Your task to perform on an android device: Is it going to rain today? Image 0: 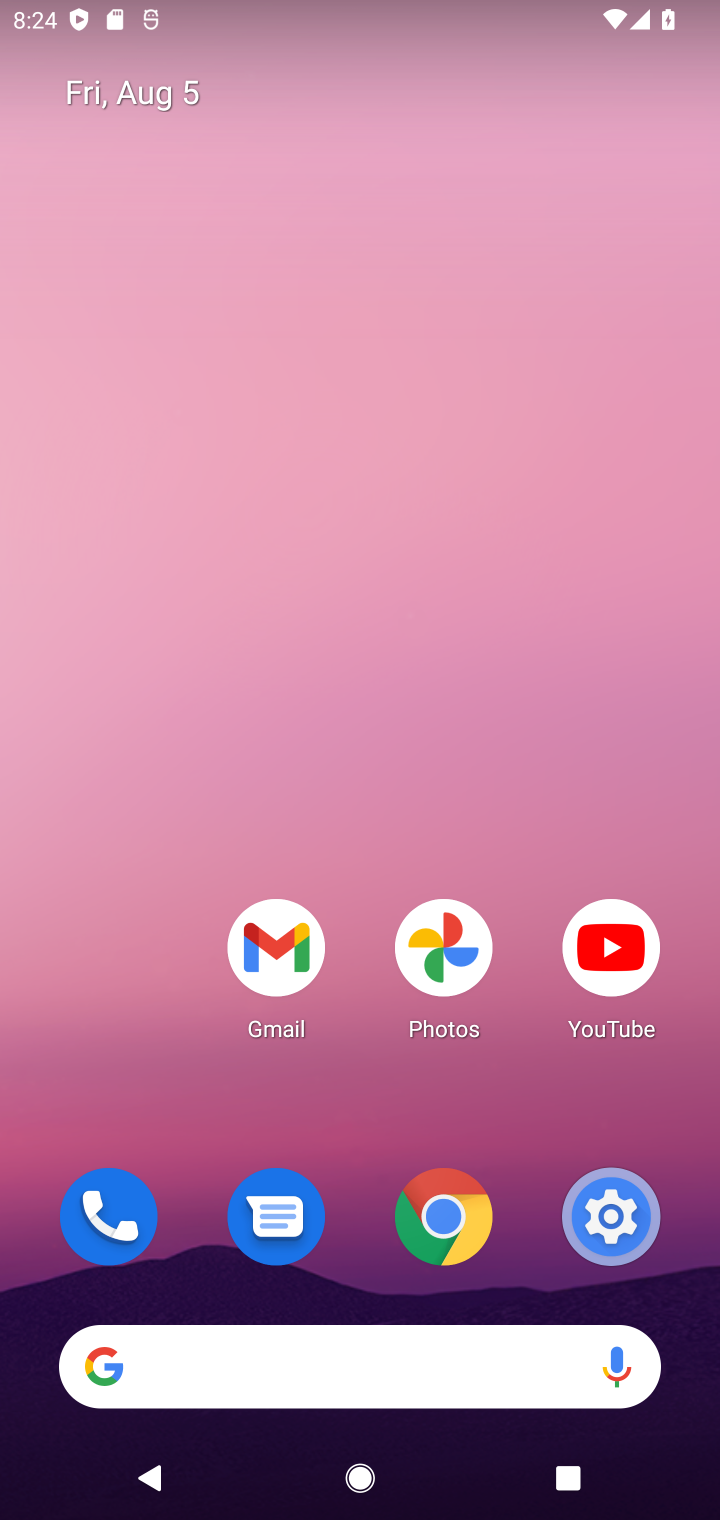
Step 0: drag from (345, 598) to (351, 519)
Your task to perform on an android device: Is it going to rain today? Image 1: 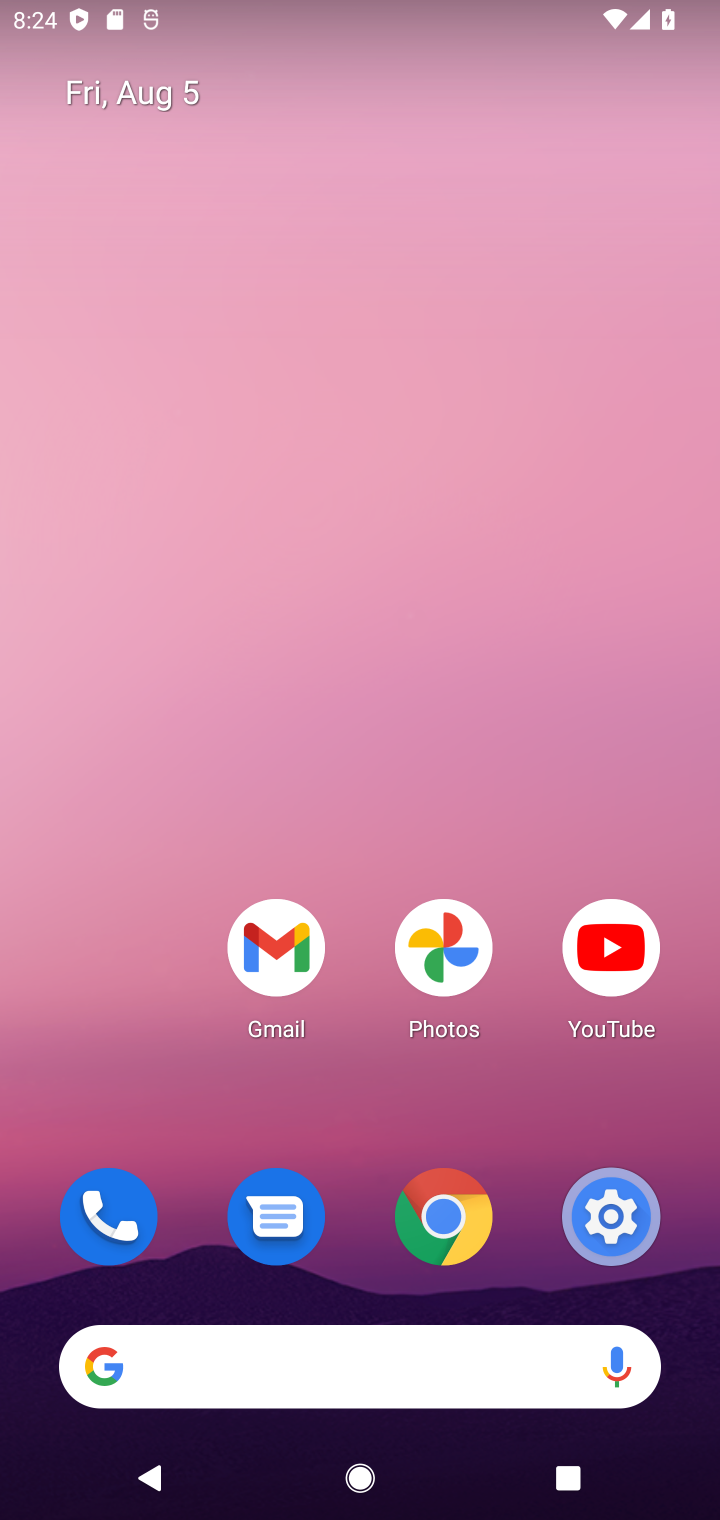
Step 1: drag from (364, 851) to (358, 596)
Your task to perform on an android device: Is it going to rain today? Image 2: 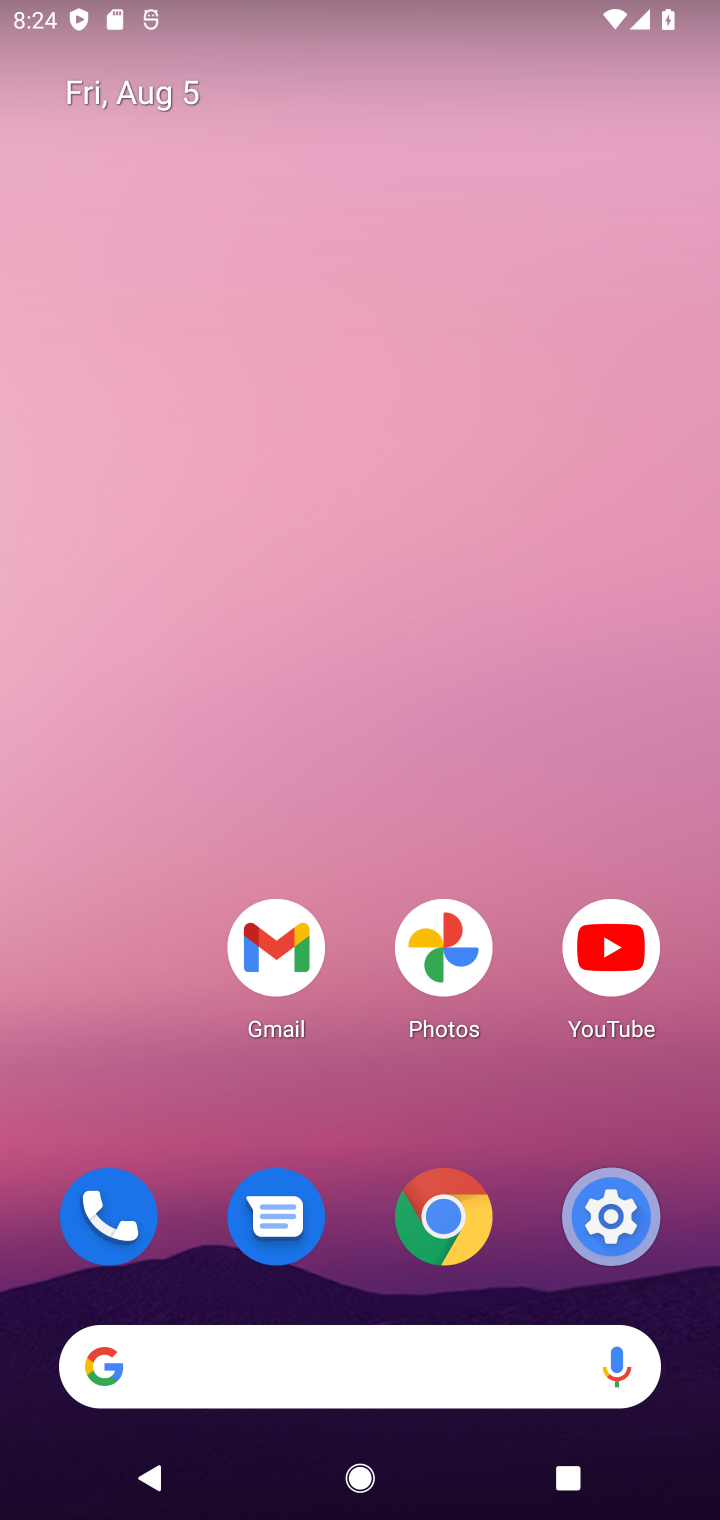
Step 2: drag from (367, 1258) to (342, 407)
Your task to perform on an android device: Is it going to rain today? Image 3: 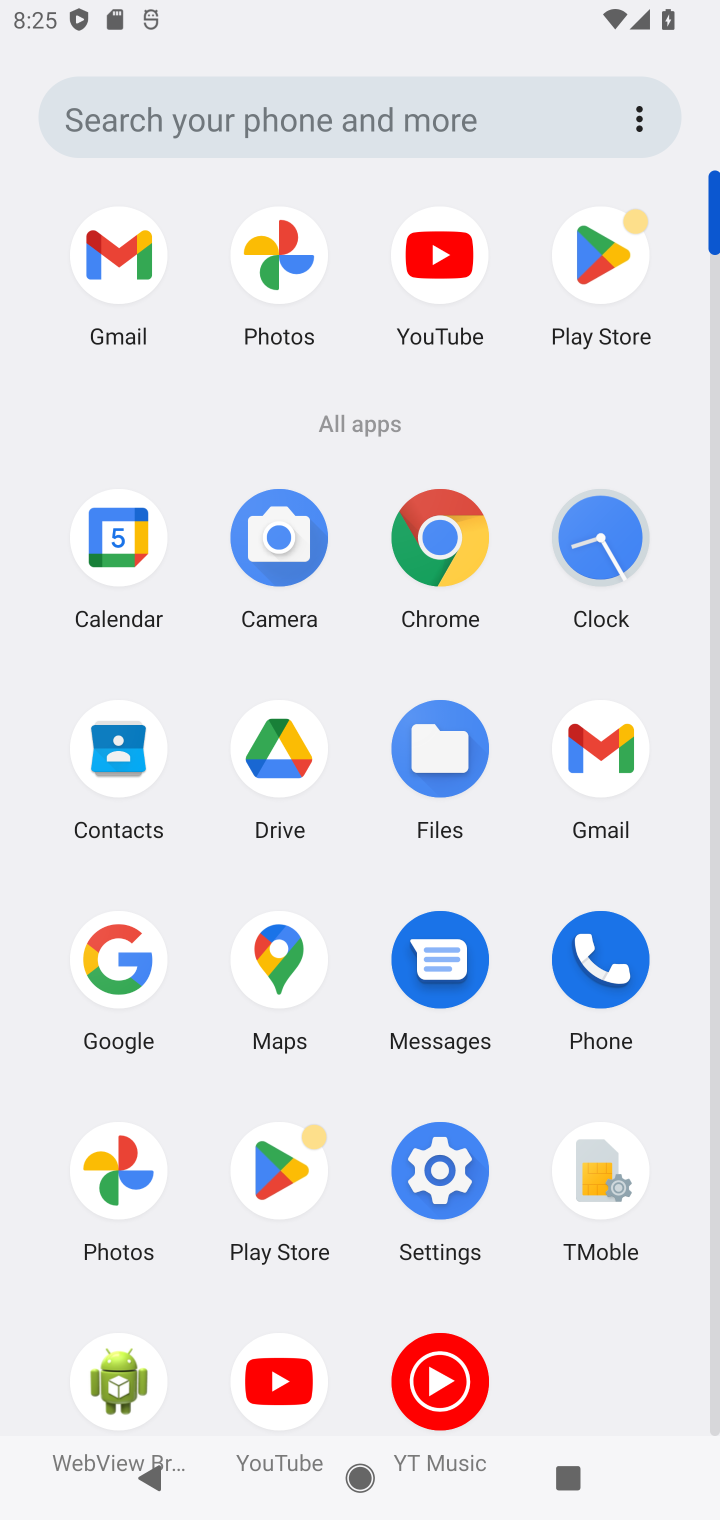
Step 3: click (233, 122)
Your task to perform on an android device: Is it going to rain today? Image 4: 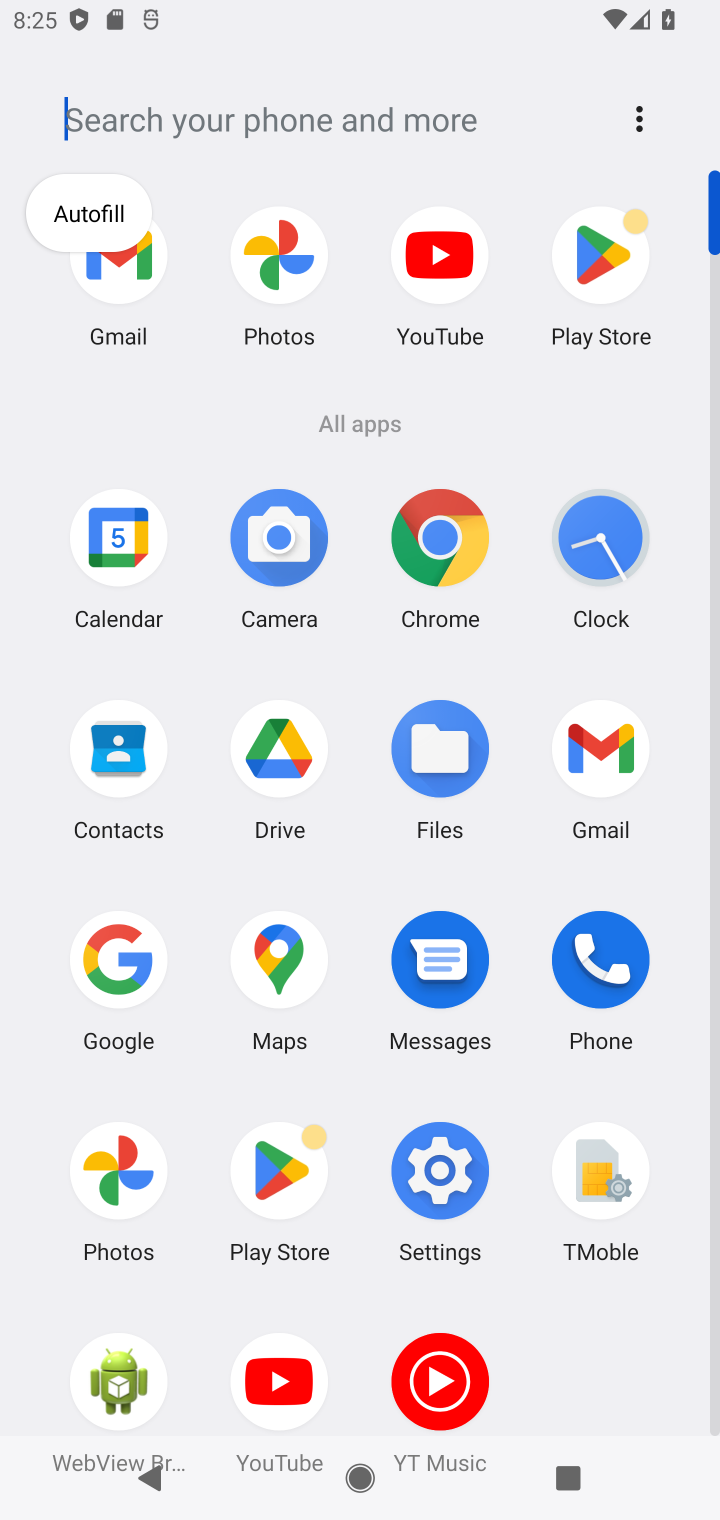
Step 4: type "Is it going to rain today?"
Your task to perform on an android device: Is it going to rain today? Image 5: 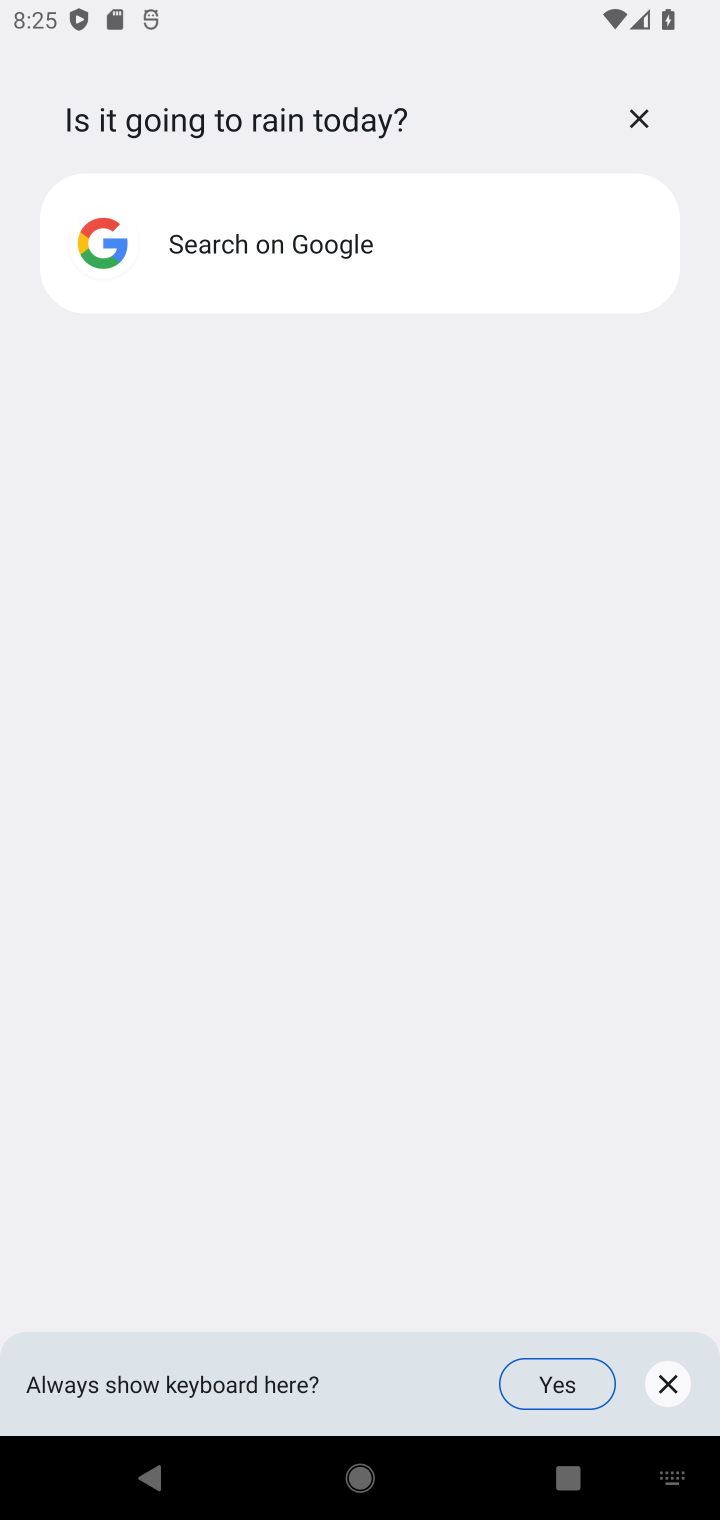
Step 5: click (230, 225)
Your task to perform on an android device: Is it going to rain today? Image 6: 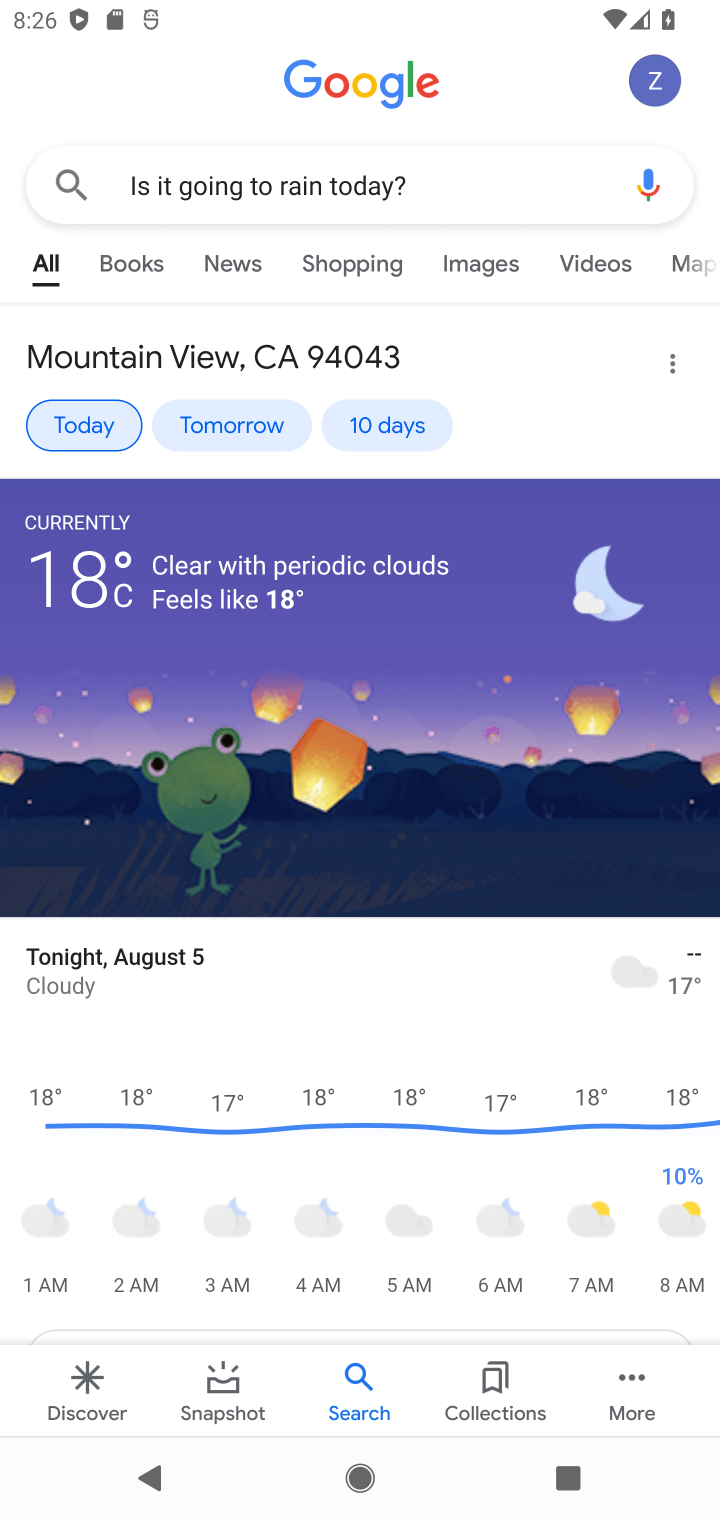
Step 6: task complete